Your task to perform on an android device: Go to display settings Image 0: 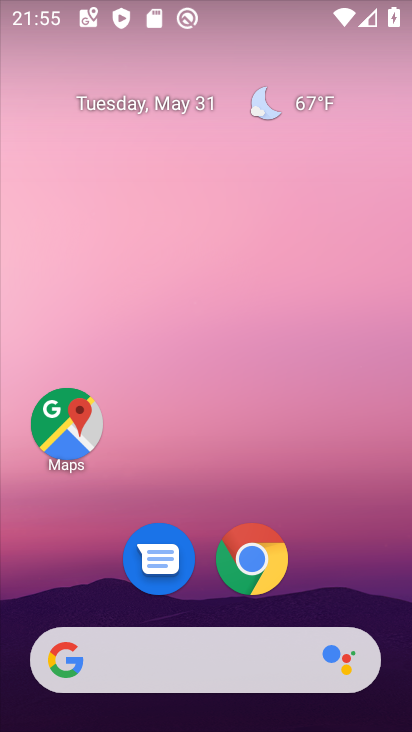
Step 0: drag from (214, 588) to (194, 35)
Your task to perform on an android device: Go to display settings Image 1: 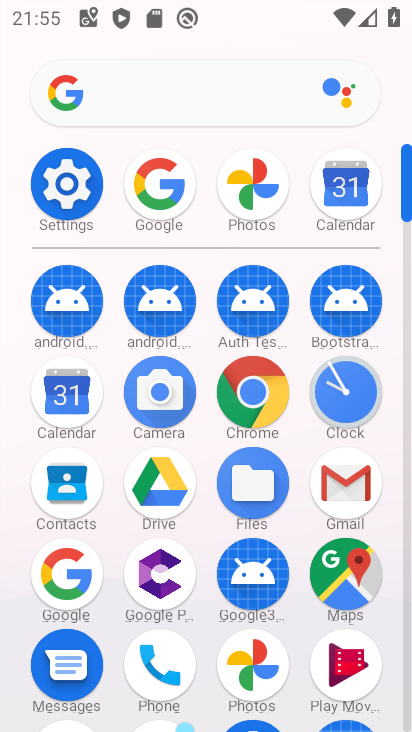
Step 1: click (69, 183)
Your task to perform on an android device: Go to display settings Image 2: 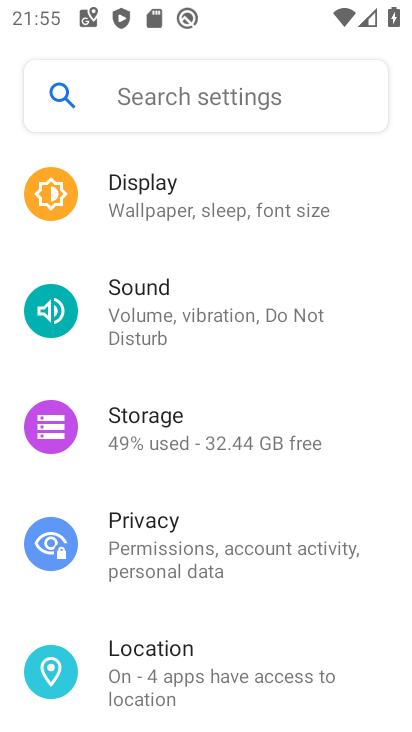
Step 2: click (130, 203)
Your task to perform on an android device: Go to display settings Image 3: 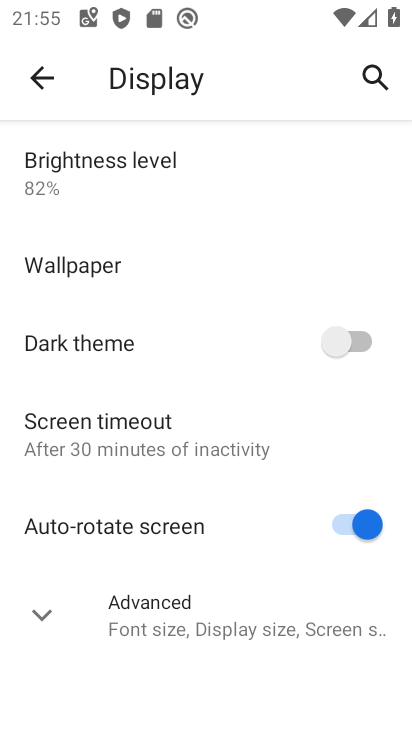
Step 3: task complete